Your task to perform on an android device: Open the web browser Image 0: 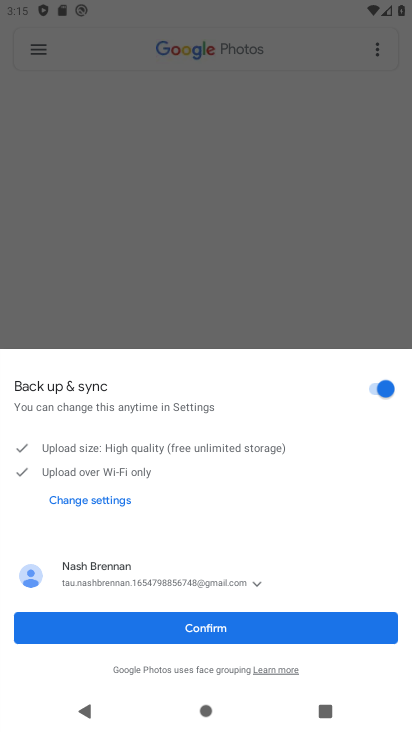
Step 0: press home button
Your task to perform on an android device: Open the web browser Image 1: 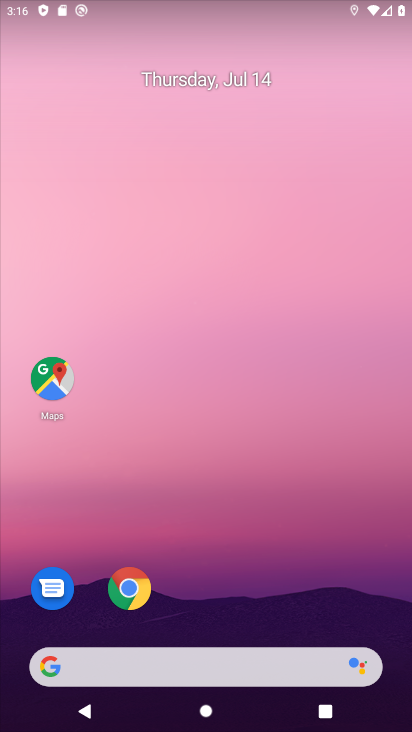
Step 1: click (130, 590)
Your task to perform on an android device: Open the web browser Image 2: 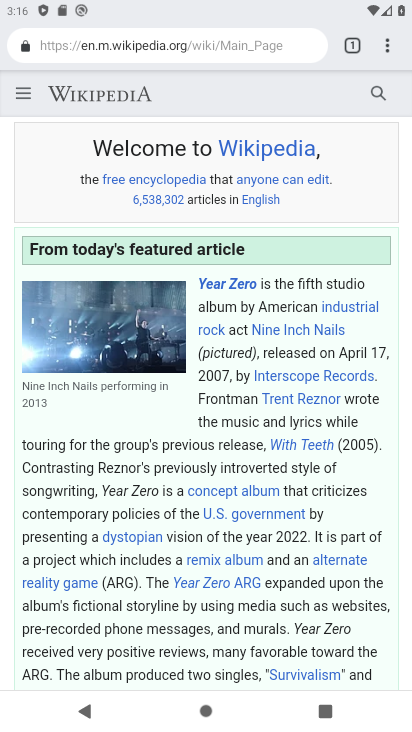
Step 2: task complete